Your task to perform on an android device: Open Google Image 0: 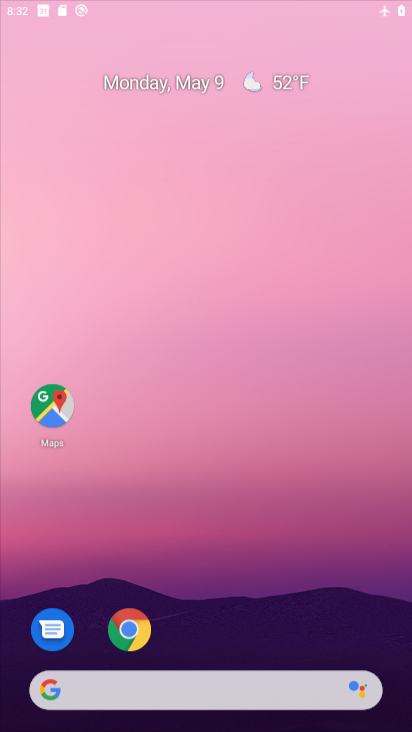
Step 0: click (267, 91)
Your task to perform on an android device: Open Google Image 1: 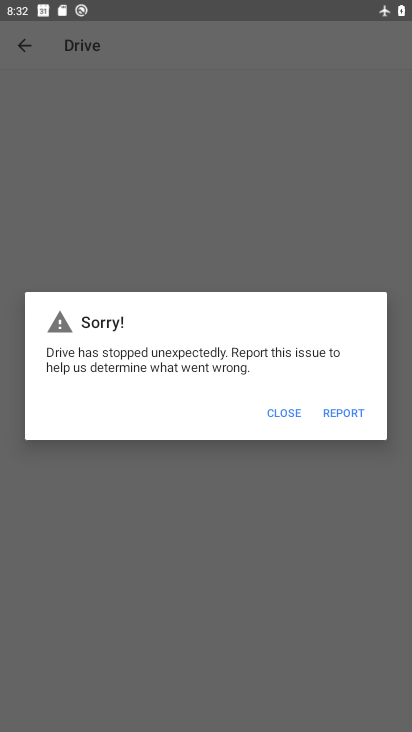
Step 1: press home button
Your task to perform on an android device: Open Google Image 2: 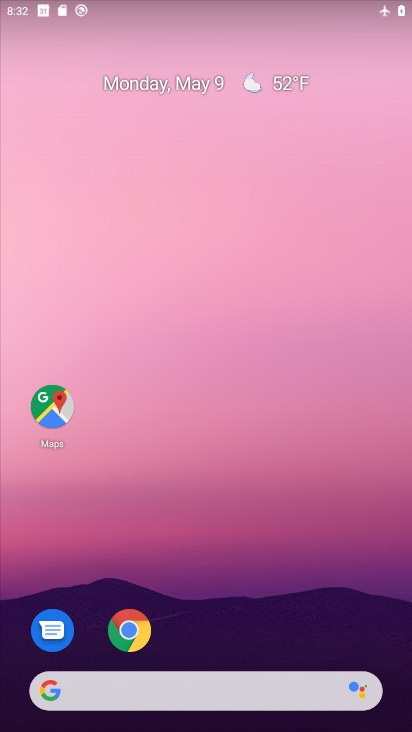
Step 2: click (118, 674)
Your task to perform on an android device: Open Google Image 3: 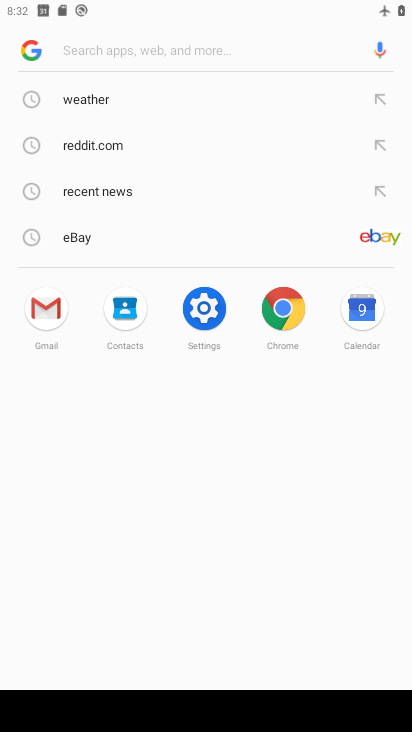
Step 3: click (42, 58)
Your task to perform on an android device: Open Google Image 4: 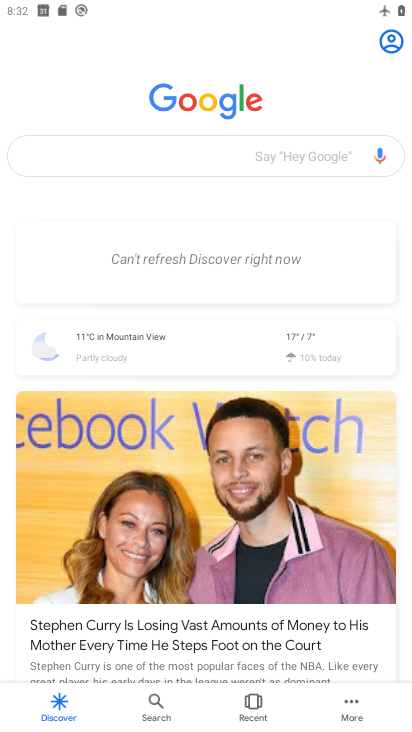
Step 4: task complete